Your task to perform on an android device: Show me the alarms in the clock app Image 0: 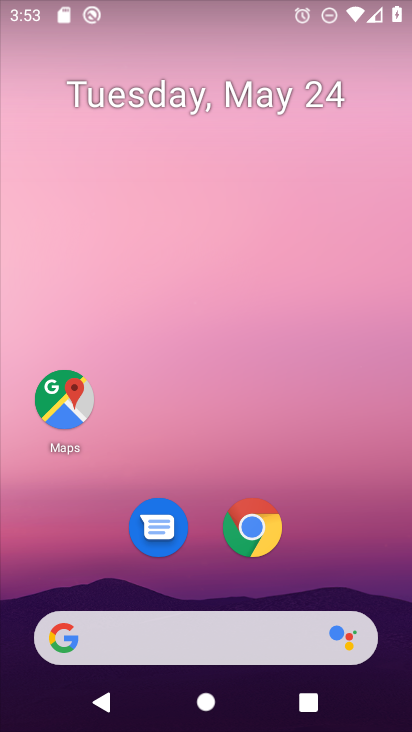
Step 0: drag from (211, 591) to (258, 2)
Your task to perform on an android device: Show me the alarms in the clock app Image 1: 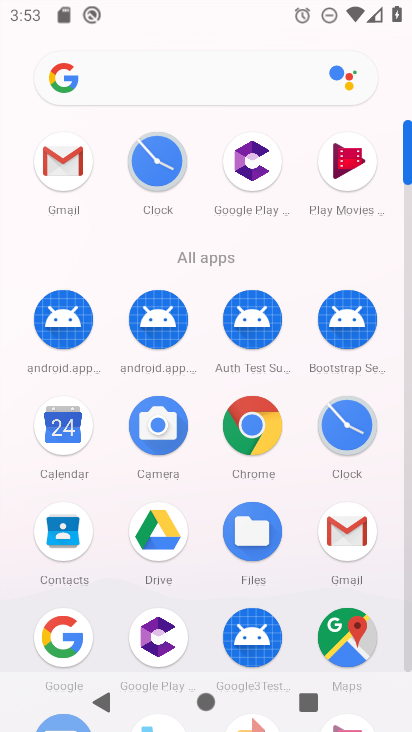
Step 1: click (339, 430)
Your task to perform on an android device: Show me the alarms in the clock app Image 2: 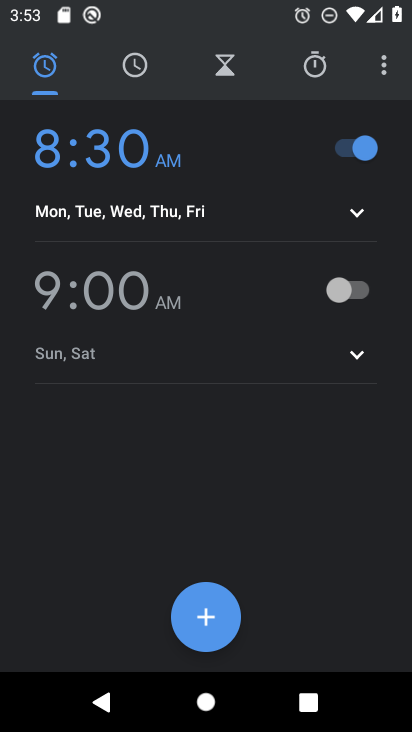
Step 2: task complete